Your task to perform on an android device: turn off improve location accuracy Image 0: 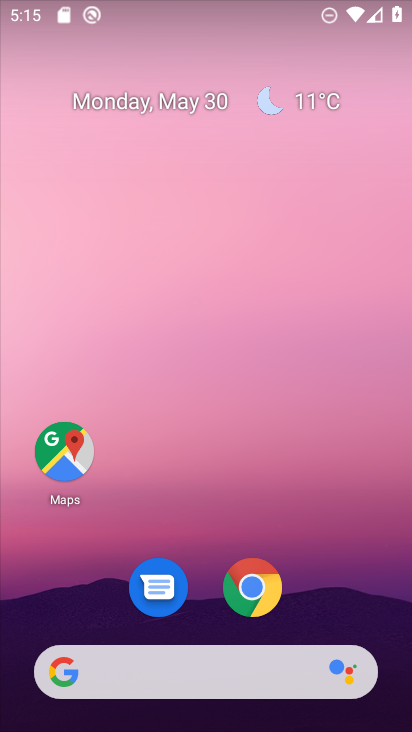
Step 0: drag from (342, 538) to (278, 69)
Your task to perform on an android device: turn off improve location accuracy Image 1: 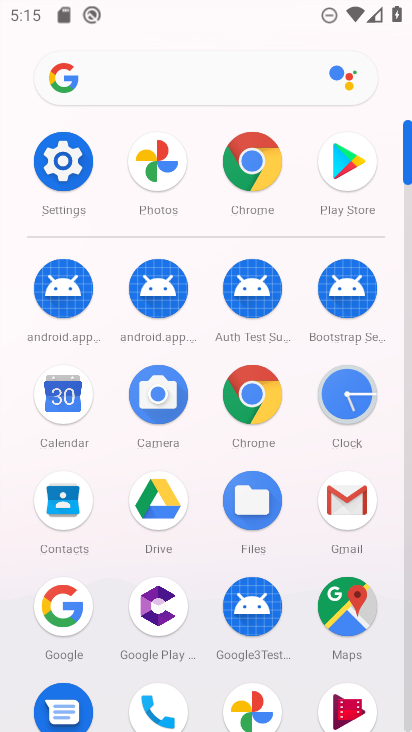
Step 1: drag from (5, 582) to (24, 278)
Your task to perform on an android device: turn off improve location accuracy Image 2: 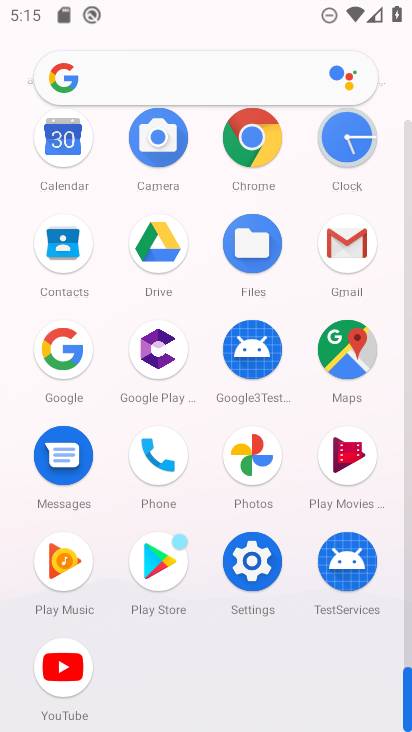
Step 2: click (244, 557)
Your task to perform on an android device: turn off improve location accuracy Image 3: 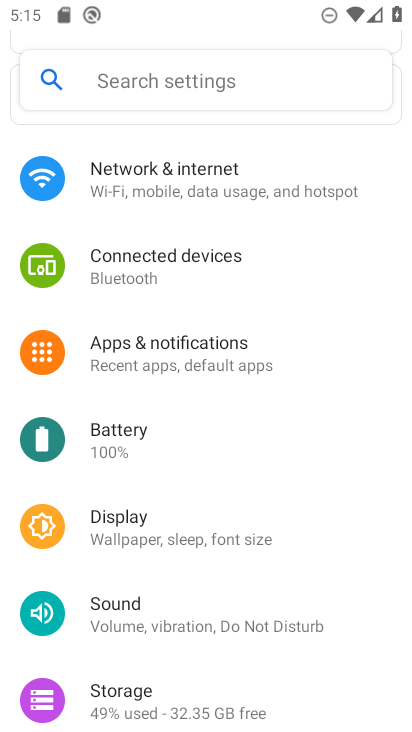
Step 3: drag from (300, 645) to (311, 244)
Your task to perform on an android device: turn off improve location accuracy Image 4: 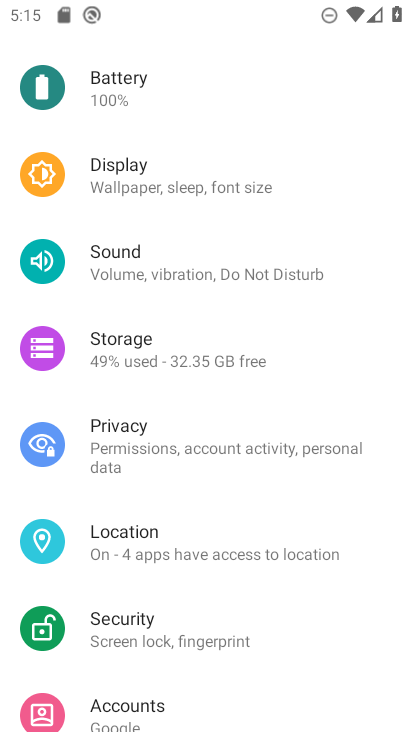
Step 4: drag from (294, 631) to (350, 216)
Your task to perform on an android device: turn off improve location accuracy Image 5: 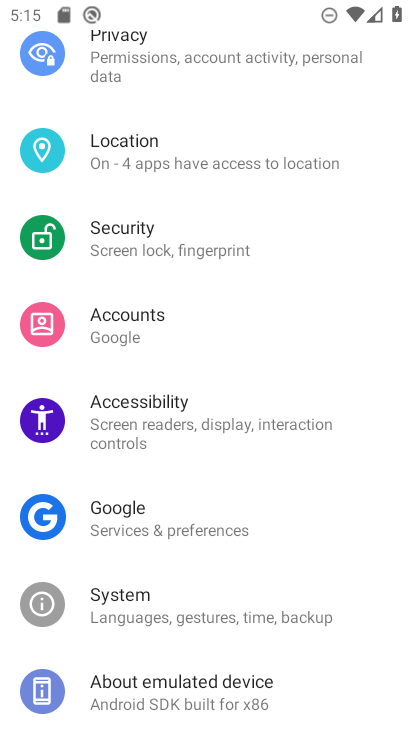
Step 5: drag from (298, 509) to (323, 174)
Your task to perform on an android device: turn off improve location accuracy Image 6: 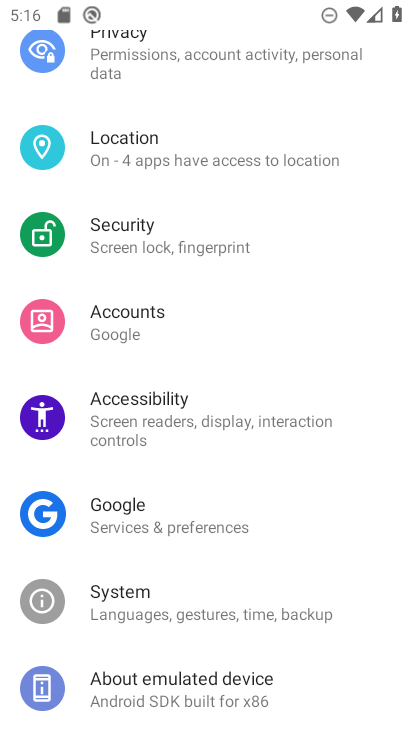
Step 6: drag from (335, 286) to (336, 597)
Your task to perform on an android device: turn off improve location accuracy Image 7: 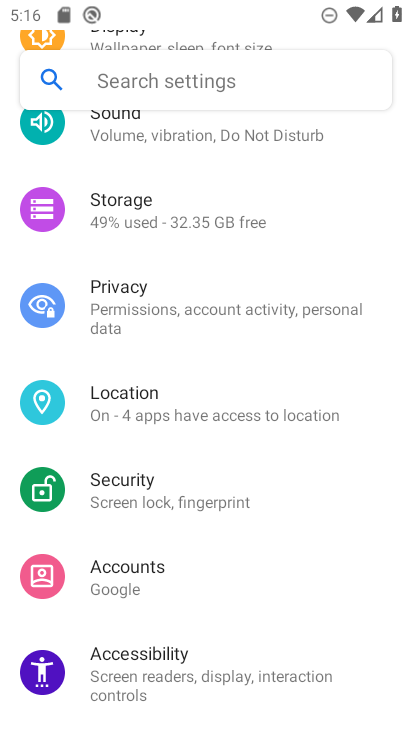
Step 7: drag from (335, 618) to (332, 121)
Your task to perform on an android device: turn off improve location accuracy Image 8: 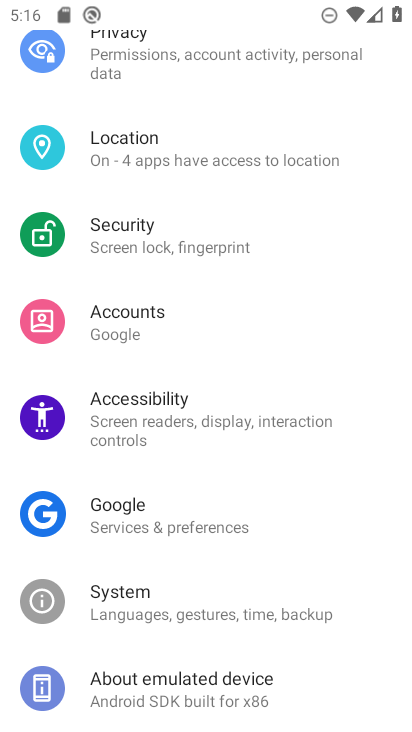
Step 8: click (171, 142)
Your task to perform on an android device: turn off improve location accuracy Image 9: 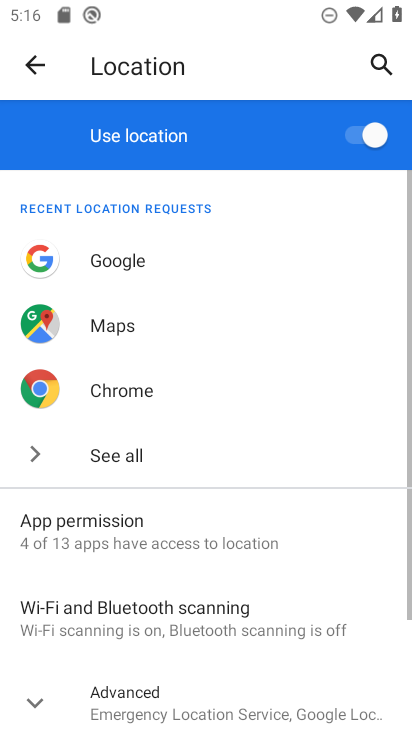
Step 9: click (109, 681)
Your task to perform on an android device: turn off improve location accuracy Image 10: 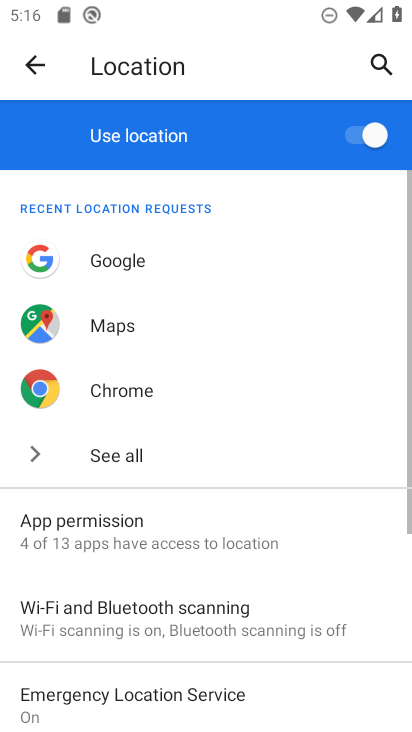
Step 10: drag from (295, 553) to (314, 140)
Your task to perform on an android device: turn off improve location accuracy Image 11: 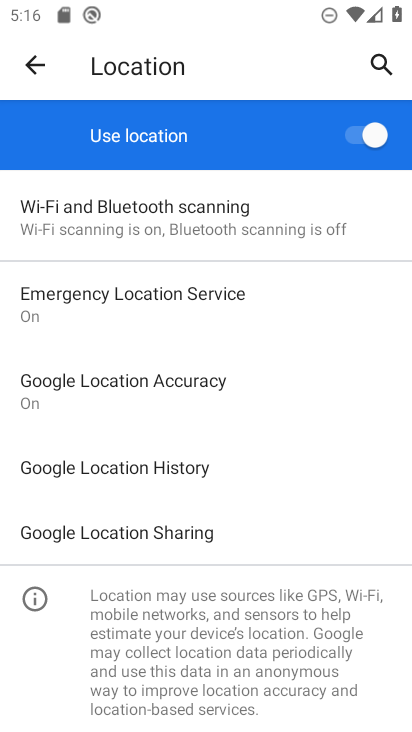
Step 11: click (171, 375)
Your task to perform on an android device: turn off improve location accuracy Image 12: 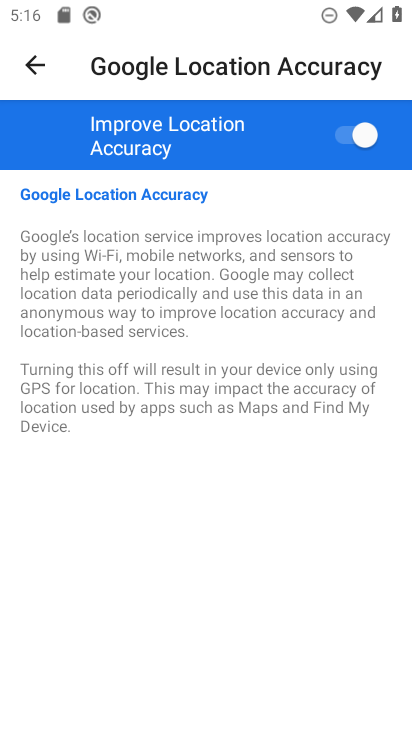
Step 12: click (366, 126)
Your task to perform on an android device: turn off improve location accuracy Image 13: 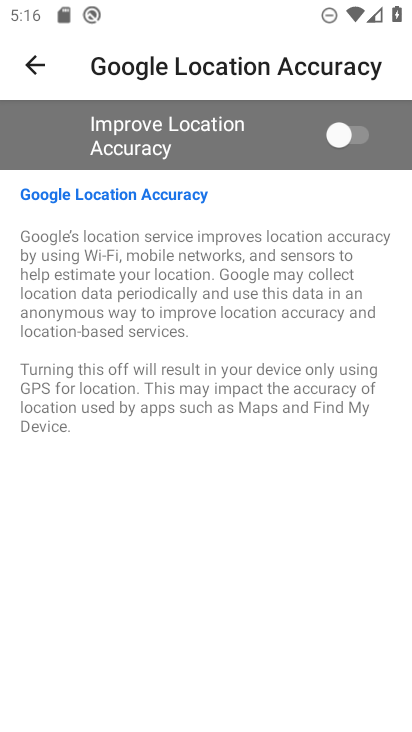
Step 13: task complete